Your task to perform on an android device: Show me productivity apps on the Play Store Image 0: 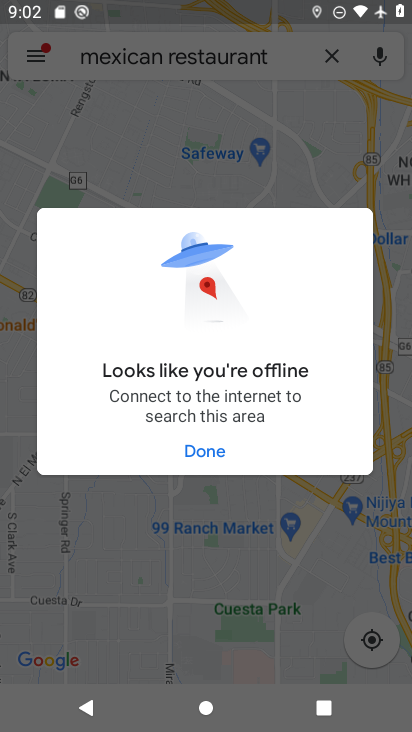
Step 0: press home button
Your task to perform on an android device: Show me productivity apps on the Play Store Image 1: 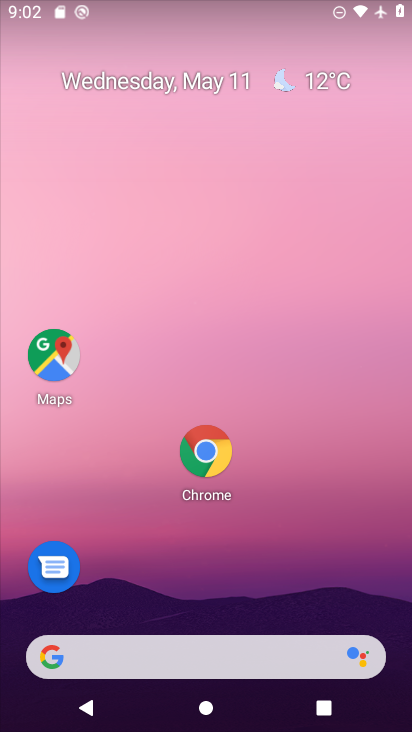
Step 1: drag from (225, 656) to (350, 142)
Your task to perform on an android device: Show me productivity apps on the Play Store Image 2: 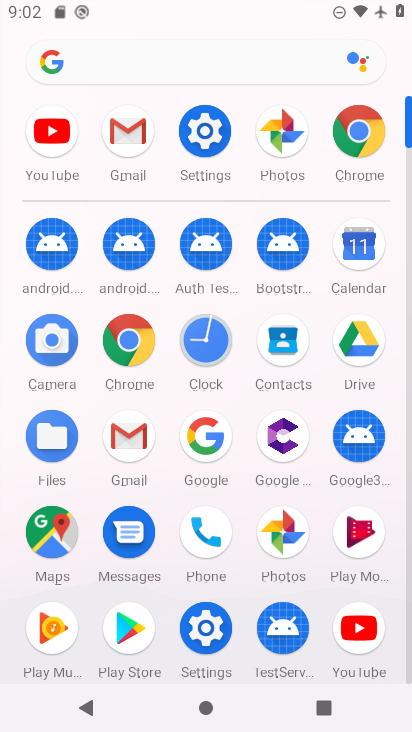
Step 2: click (135, 636)
Your task to perform on an android device: Show me productivity apps on the Play Store Image 3: 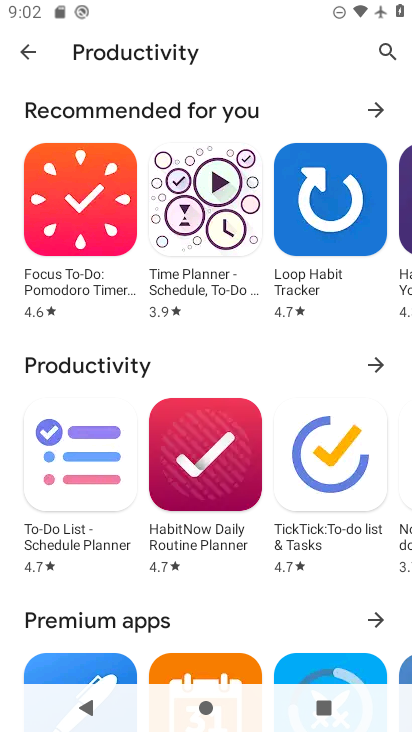
Step 3: task complete